Your task to perform on an android device: turn on data saver in the chrome app Image 0: 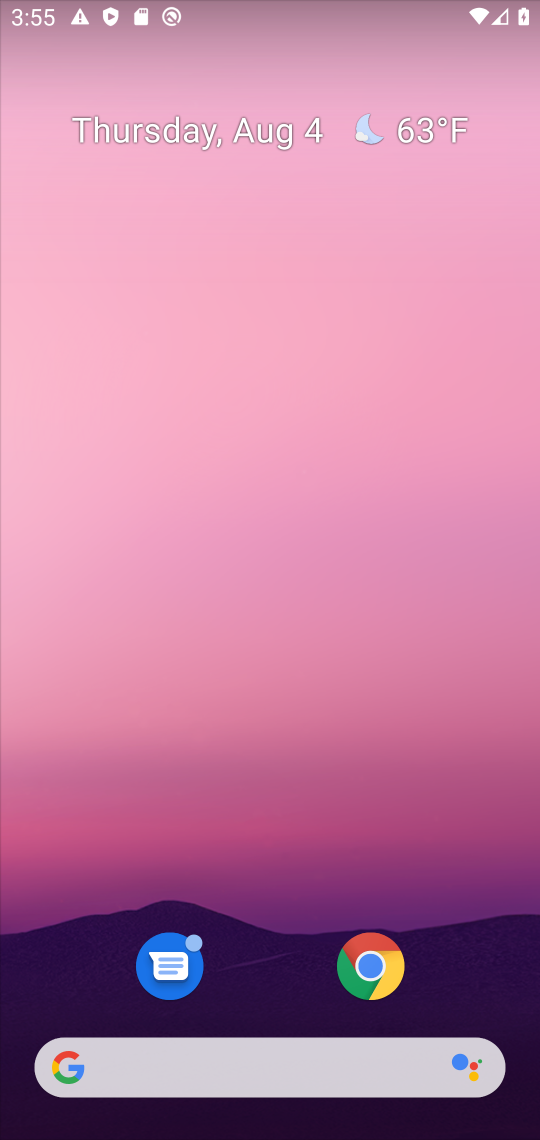
Step 0: drag from (252, 1003) to (365, 211)
Your task to perform on an android device: turn on data saver in the chrome app Image 1: 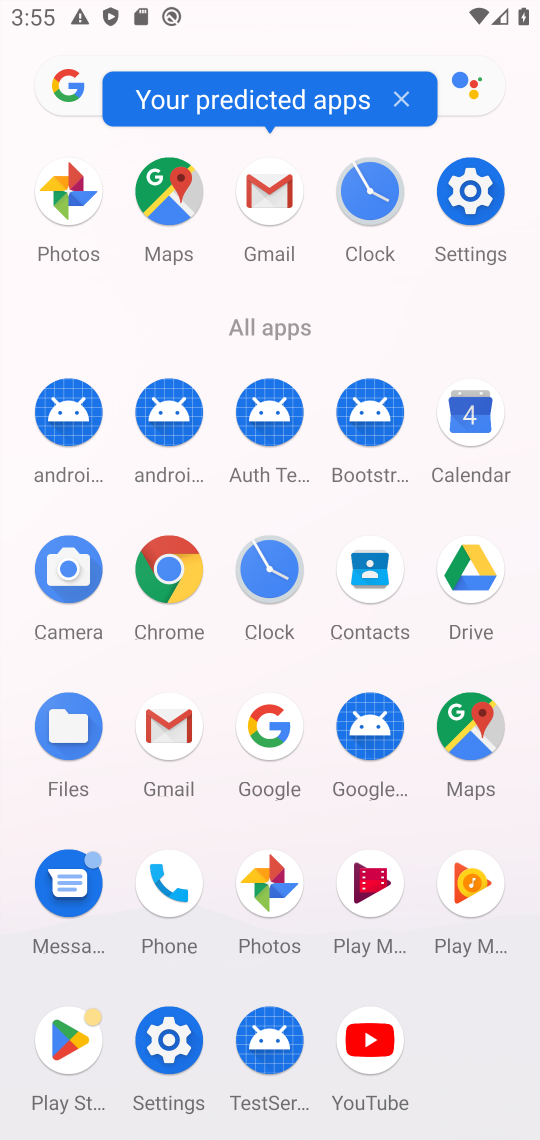
Step 1: click (176, 576)
Your task to perform on an android device: turn on data saver in the chrome app Image 2: 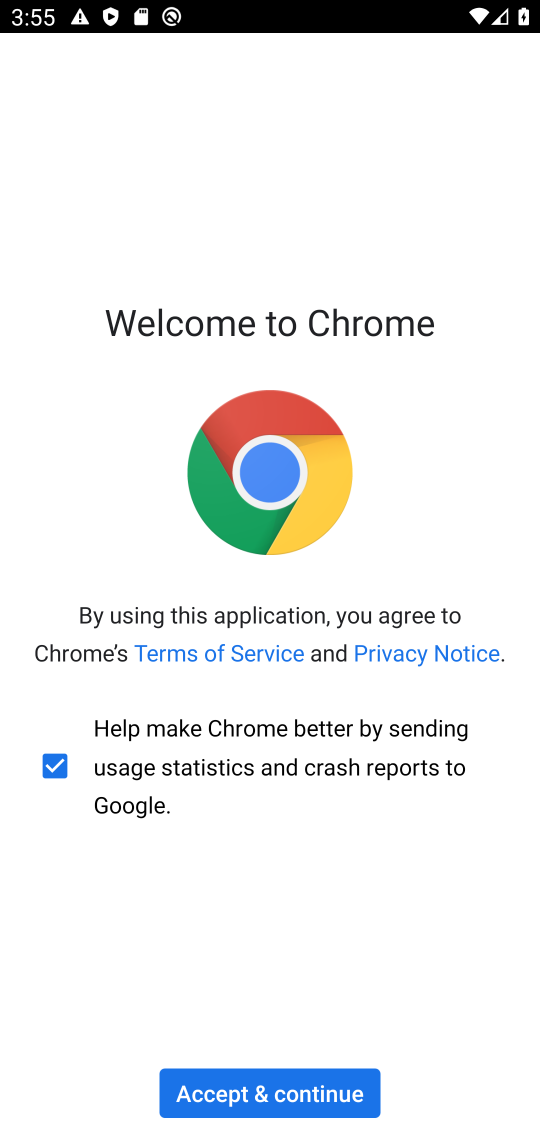
Step 2: click (259, 1093)
Your task to perform on an android device: turn on data saver in the chrome app Image 3: 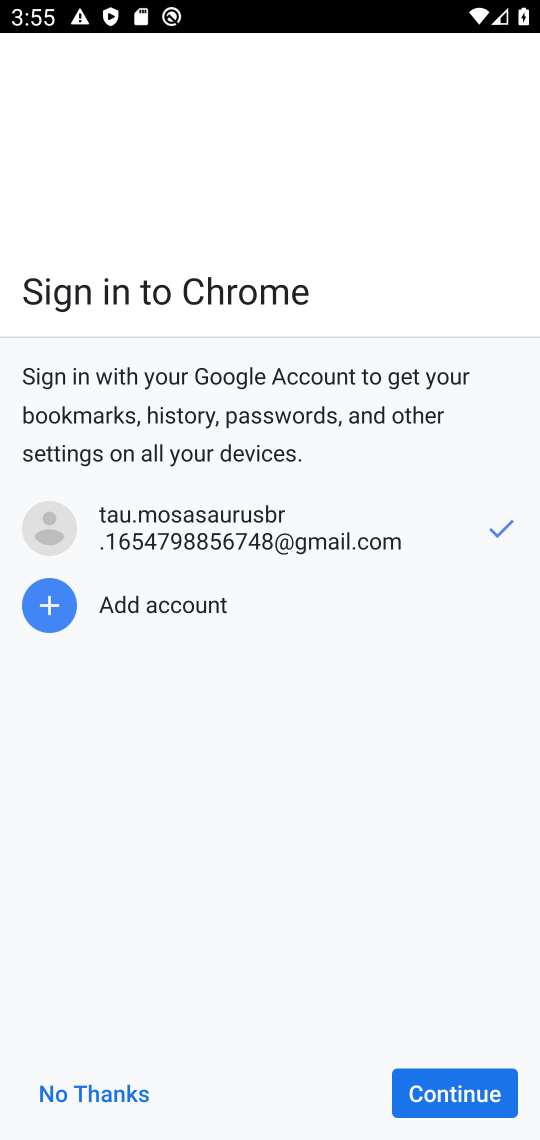
Step 3: click (74, 1080)
Your task to perform on an android device: turn on data saver in the chrome app Image 4: 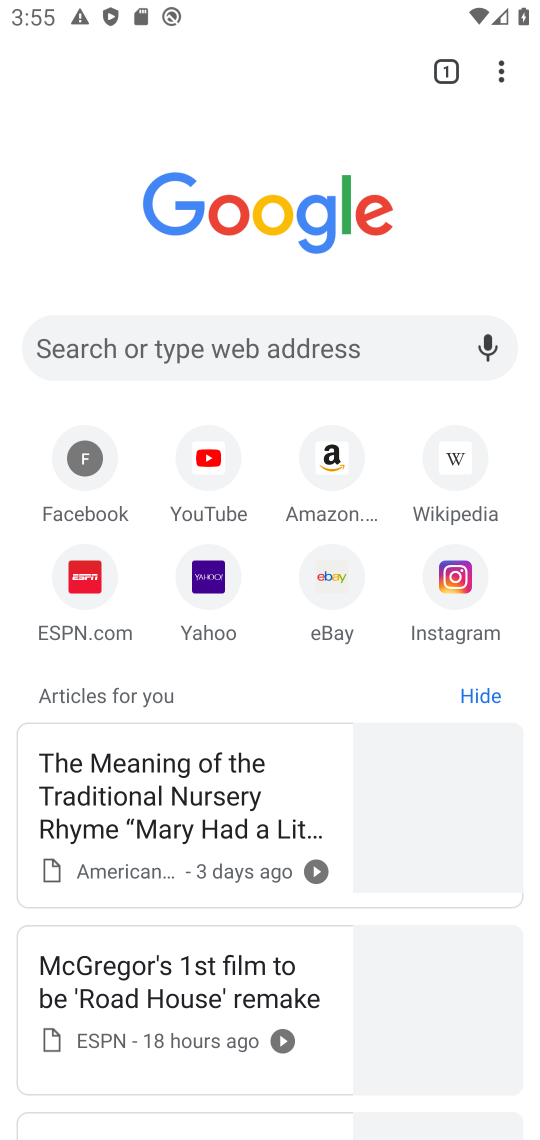
Step 4: drag from (499, 69) to (223, 615)
Your task to perform on an android device: turn on data saver in the chrome app Image 5: 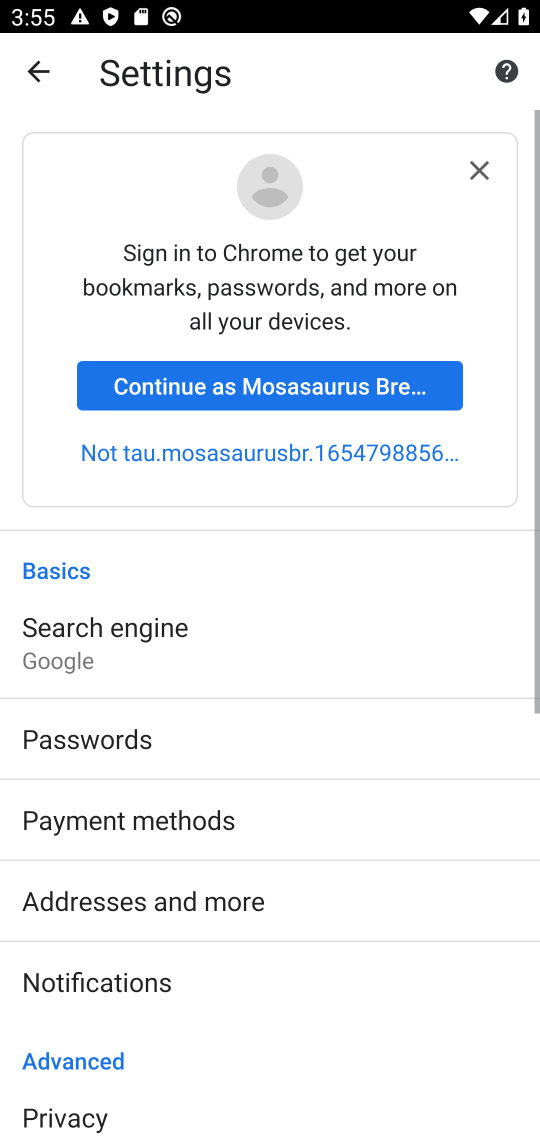
Step 5: drag from (135, 919) to (208, 355)
Your task to perform on an android device: turn on data saver in the chrome app Image 6: 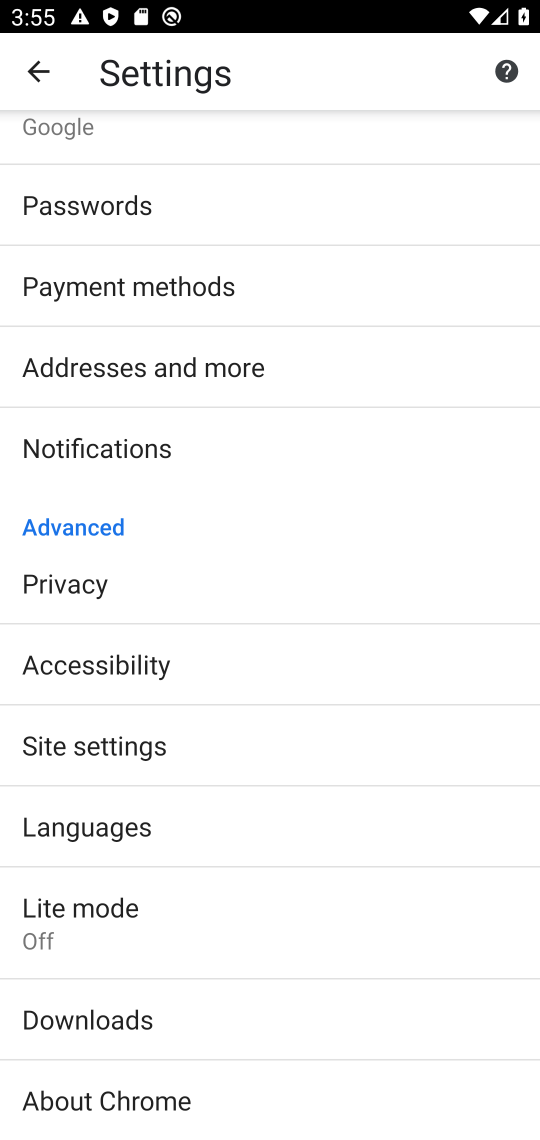
Step 6: click (94, 931)
Your task to perform on an android device: turn on data saver in the chrome app Image 7: 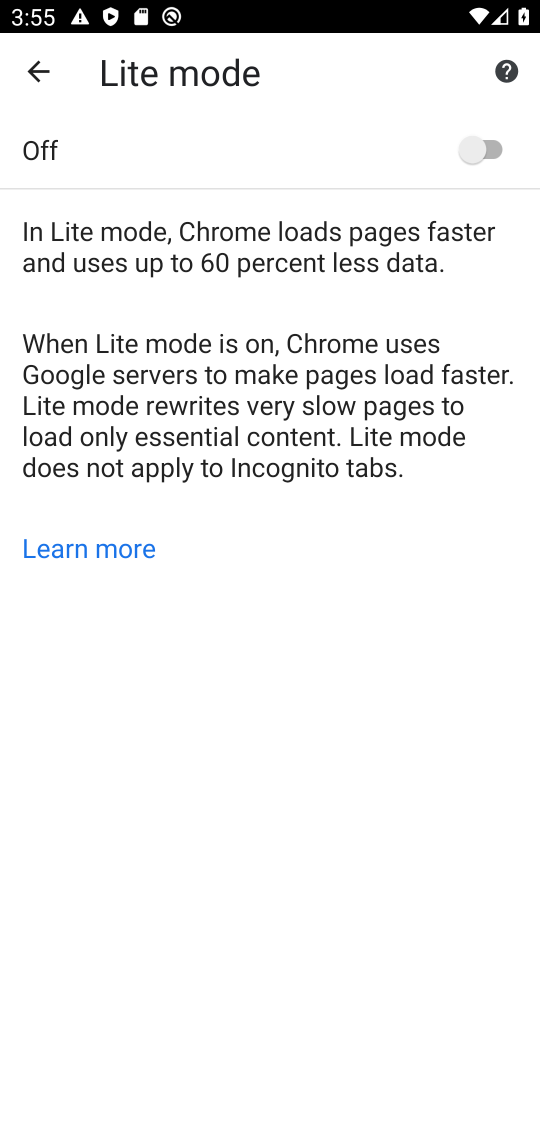
Step 7: click (494, 151)
Your task to perform on an android device: turn on data saver in the chrome app Image 8: 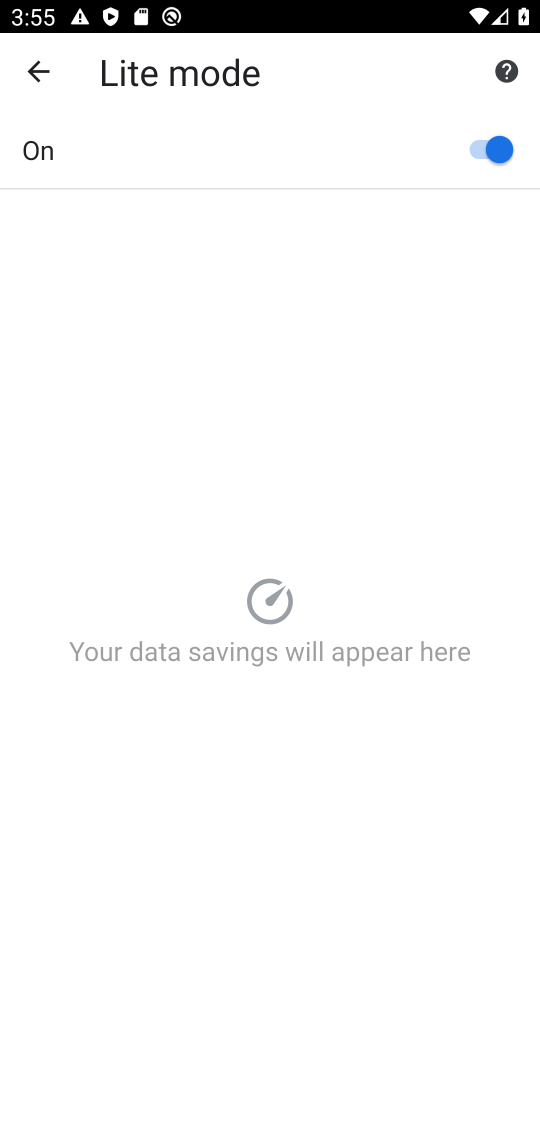
Step 8: task complete